Your task to perform on an android device: see sites visited before in the chrome app Image 0: 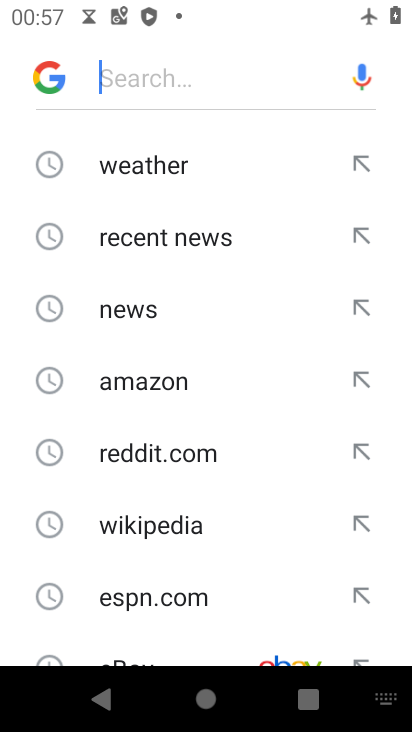
Step 0: press home button
Your task to perform on an android device: see sites visited before in the chrome app Image 1: 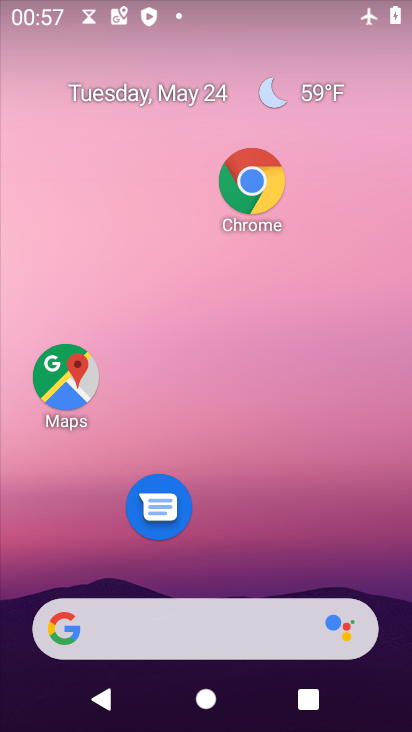
Step 1: drag from (300, 550) to (324, 232)
Your task to perform on an android device: see sites visited before in the chrome app Image 2: 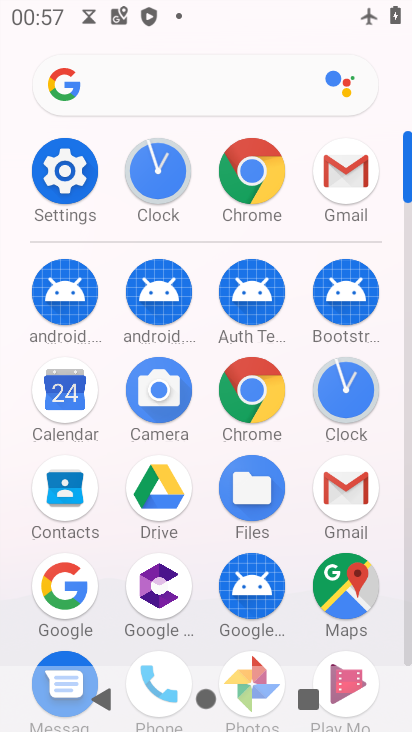
Step 2: click (246, 381)
Your task to perform on an android device: see sites visited before in the chrome app Image 3: 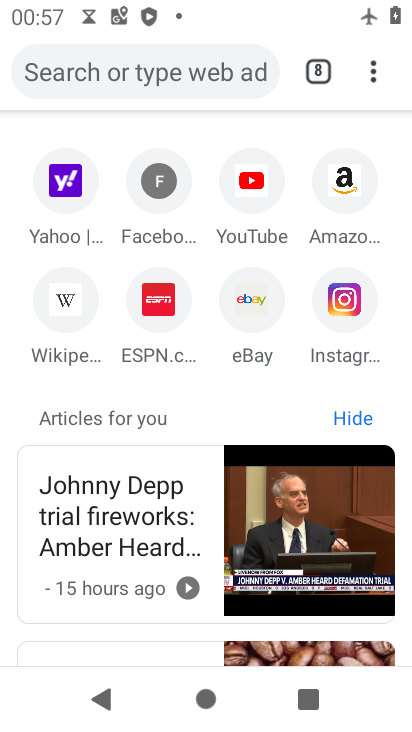
Step 3: click (378, 66)
Your task to perform on an android device: see sites visited before in the chrome app Image 4: 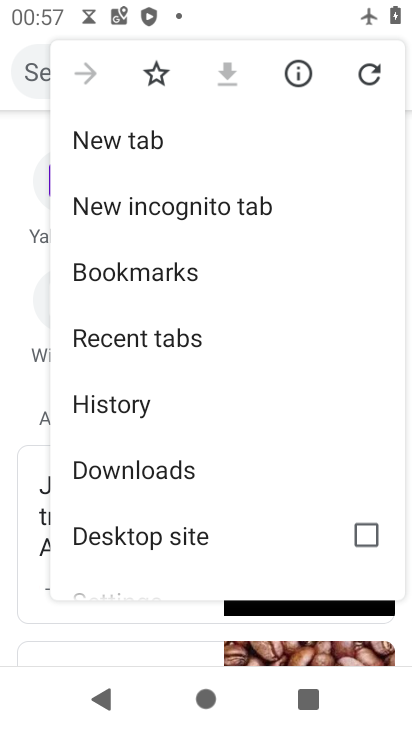
Step 4: click (167, 410)
Your task to perform on an android device: see sites visited before in the chrome app Image 5: 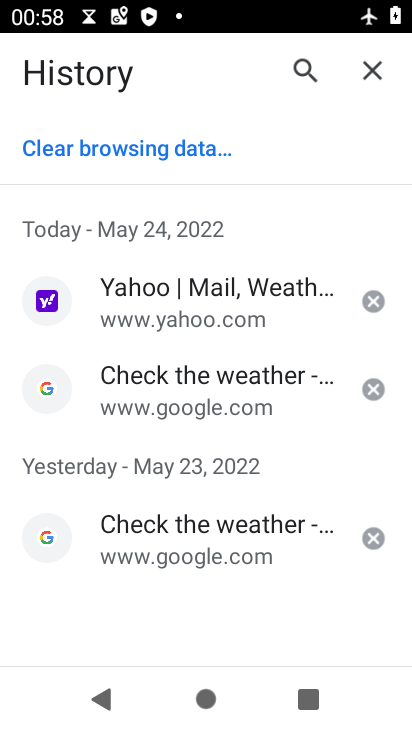
Step 5: task complete